Your task to perform on an android device: turn pop-ups off in chrome Image 0: 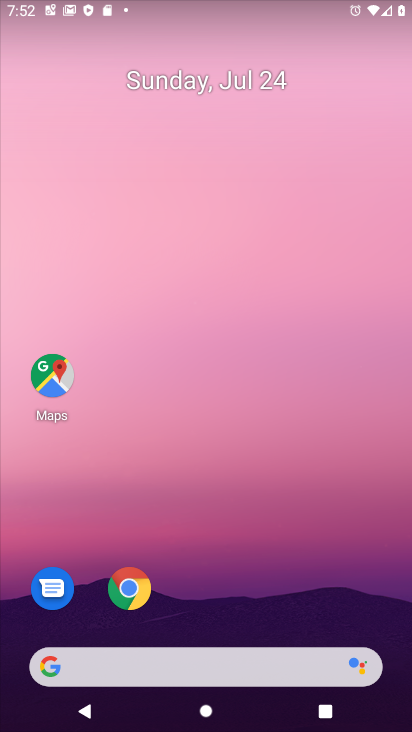
Step 0: drag from (289, 587) to (410, 7)
Your task to perform on an android device: turn pop-ups off in chrome Image 1: 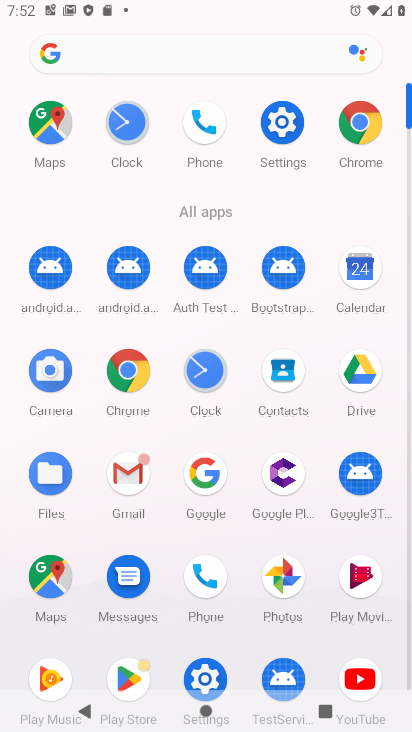
Step 1: click (367, 117)
Your task to perform on an android device: turn pop-ups off in chrome Image 2: 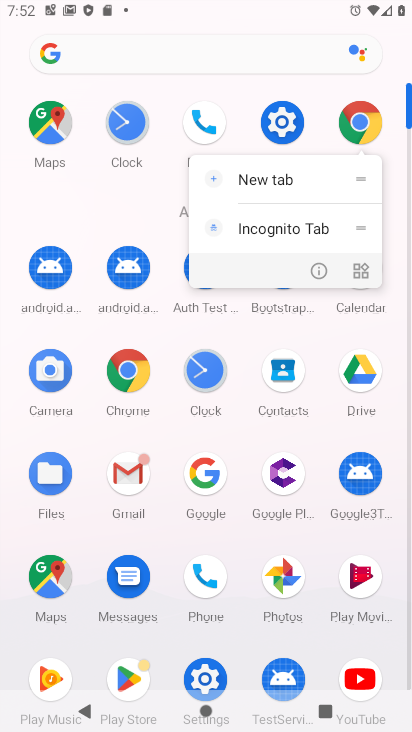
Step 2: click (367, 118)
Your task to perform on an android device: turn pop-ups off in chrome Image 3: 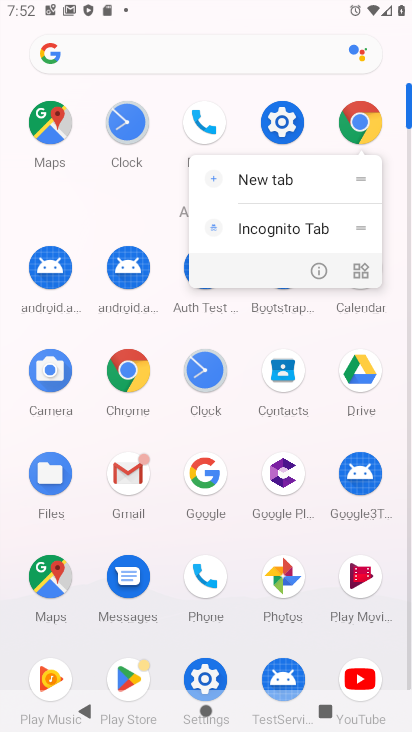
Step 3: click (356, 123)
Your task to perform on an android device: turn pop-ups off in chrome Image 4: 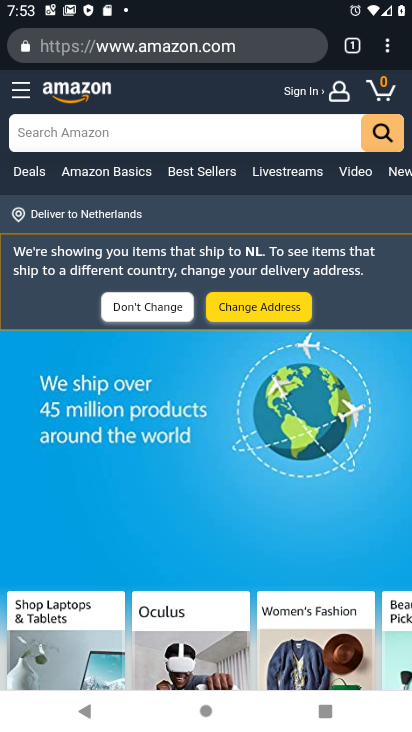
Step 4: drag from (375, 57) to (237, 546)
Your task to perform on an android device: turn pop-ups off in chrome Image 5: 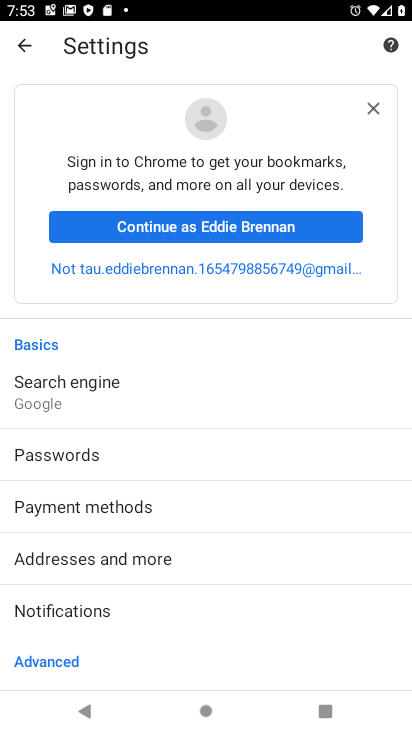
Step 5: drag from (230, 555) to (294, 144)
Your task to perform on an android device: turn pop-ups off in chrome Image 6: 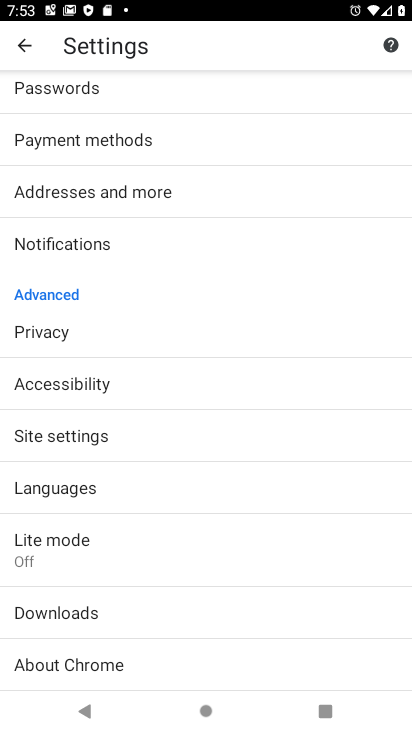
Step 6: click (169, 434)
Your task to perform on an android device: turn pop-ups off in chrome Image 7: 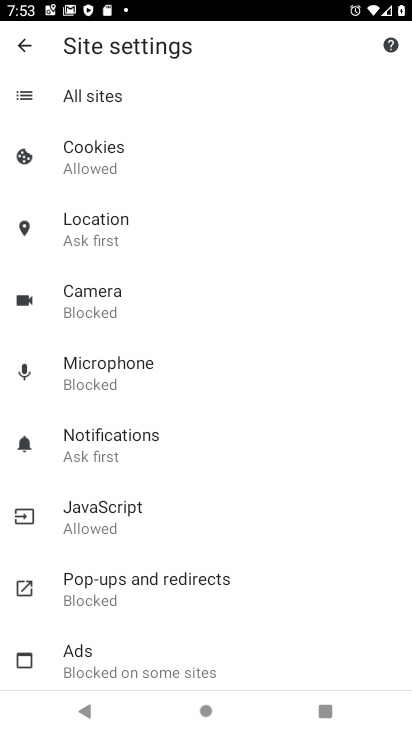
Step 7: click (153, 595)
Your task to perform on an android device: turn pop-ups off in chrome Image 8: 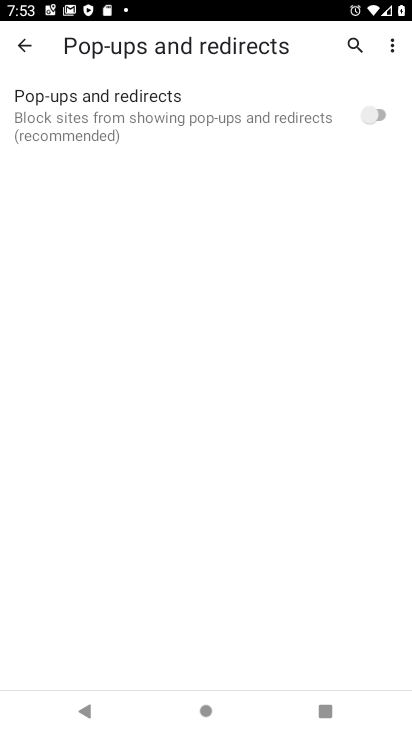
Step 8: task complete